Your task to perform on an android device: Open maps Image 0: 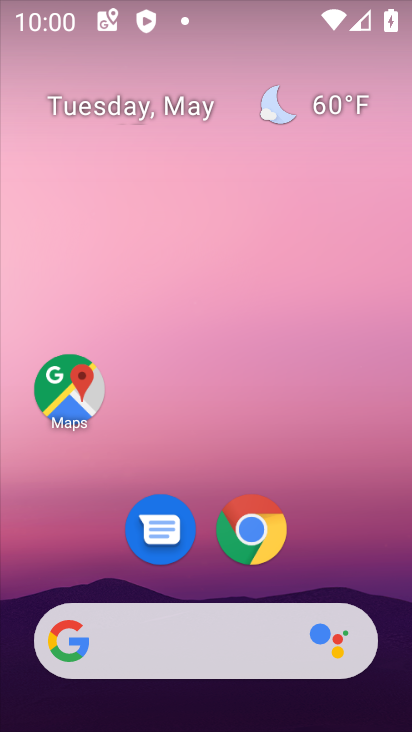
Step 0: click (225, 611)
Your task to perform on an android device: Open maps Image 1: 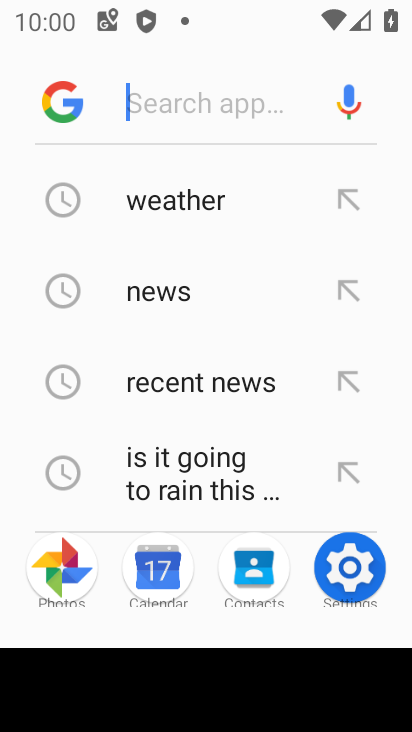
Step 1: press home button
Your task to perform on an android device: Open maps Image 2: 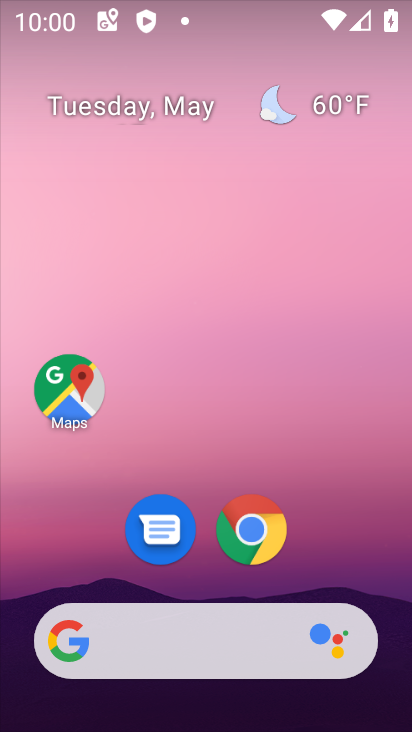
Step 2: click (61, 398)
Your task to perform on an android device: Open maps Image 3: 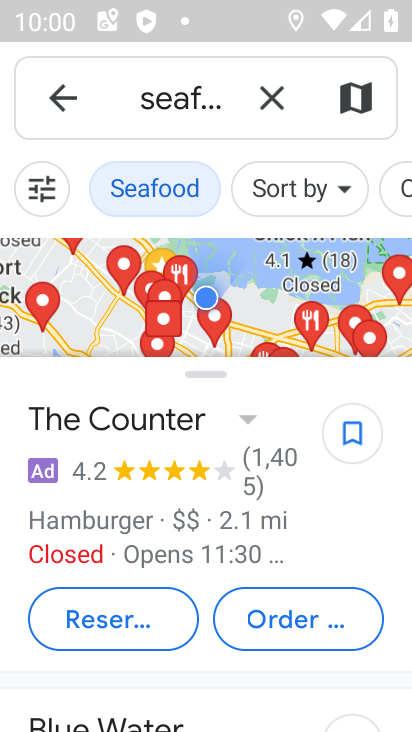
Step 3: click (268, 103)
Your task to perform on an android device: Open maps Image 4: 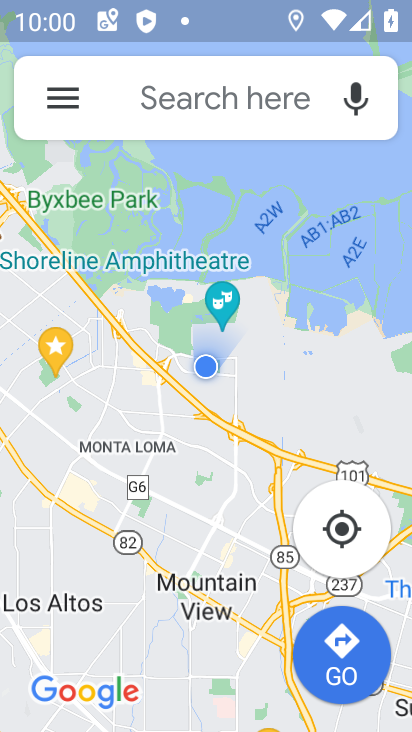
Step 4: click (211, 321)
Your task to perform on an android device: Open maps Image 5: 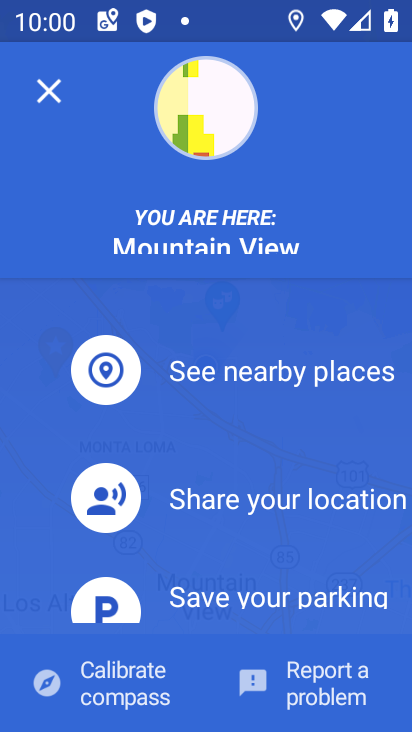
Step 5: click (50, 94)
Your task to perform on an android device: Open maps Image 6: 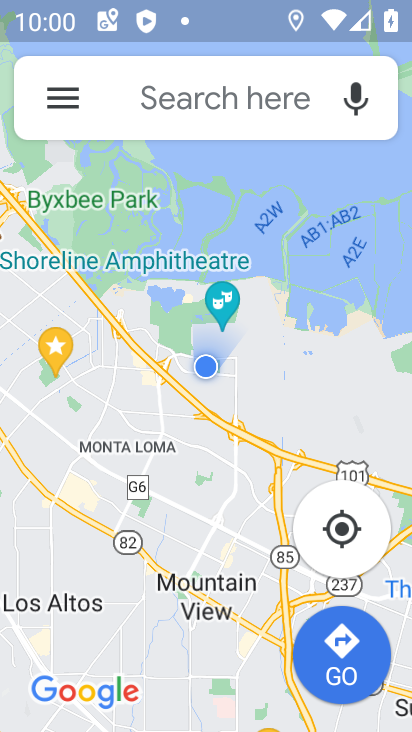
Step 6: task complete